Your task to perform on an android device: find snoozed emails in the gmail app Image 0: 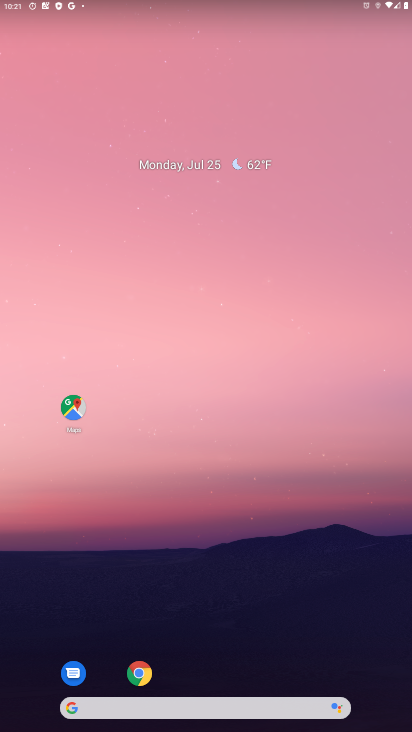
Step 0: drag from (173, 365) to (168, 210)
Your task to perform on an android device: find snoozed emails in the gmail app Image 1: 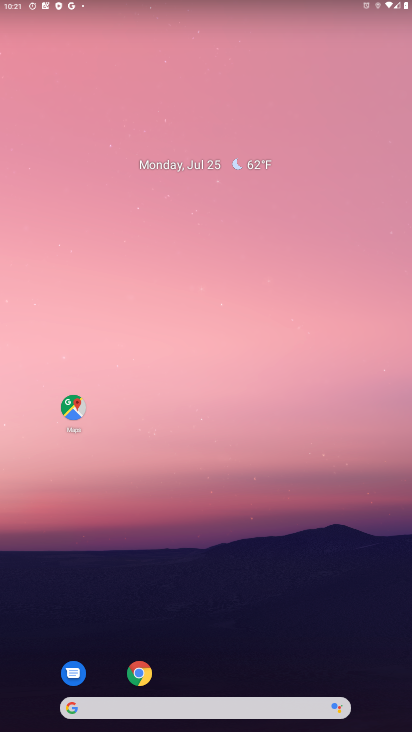
Step 1: drag from (197, 655) to (246, 65)
Your task to perform on an android device: find snoozed emails in the gmail app Image 2: 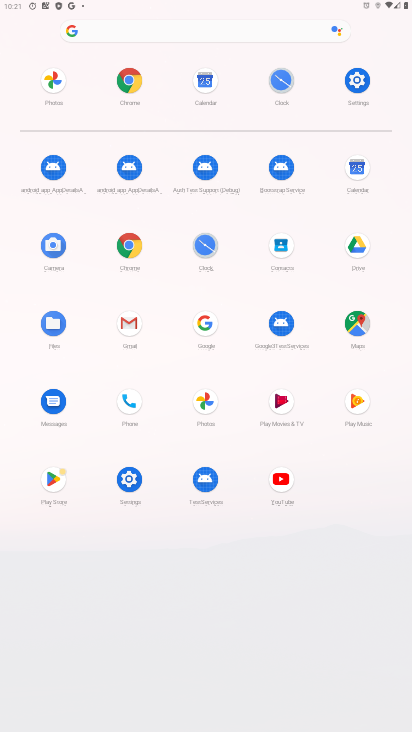
Step 2: click (129, 312)
Your task to perform on an android device: find snoozed emails in the gmail app Image 3: 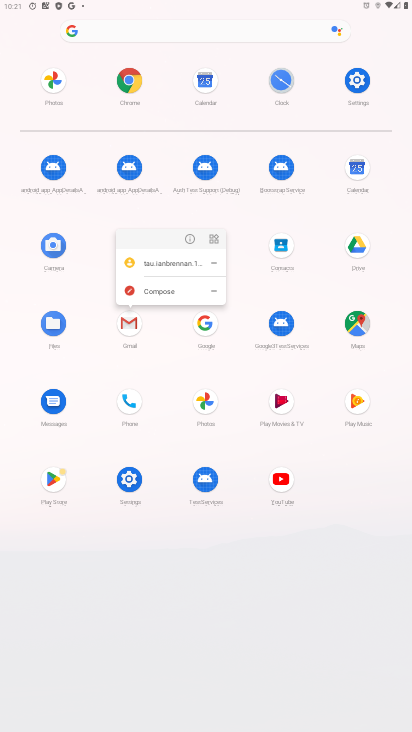
Step 3: click (186, 239)
Your task to perform on an android device: find snoozed emails in the gmail app Image 4: 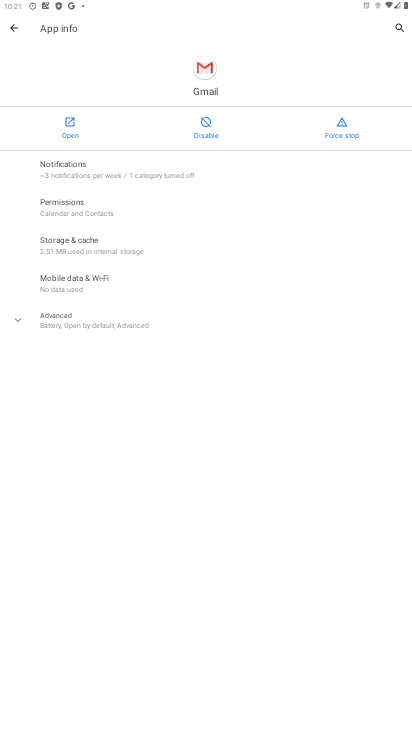
Step 4: click (72, 129)
Your task to perform on an android device: find snoozed emails in the gmail app Image 5: 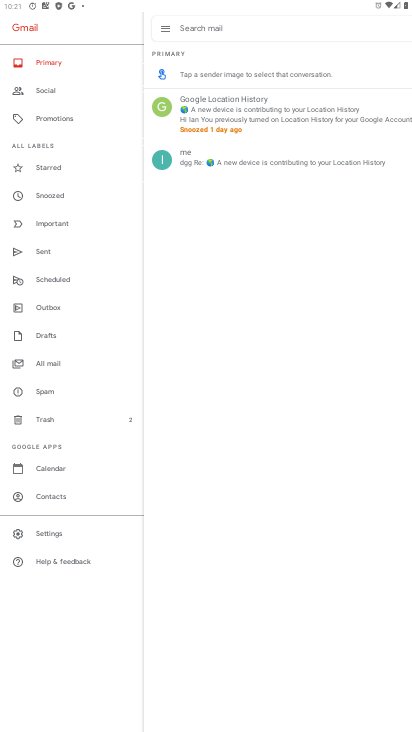
Step 5: click (56, 199)
Your task to perform on an android device: find snoozed emails in the gmail app Image 6: 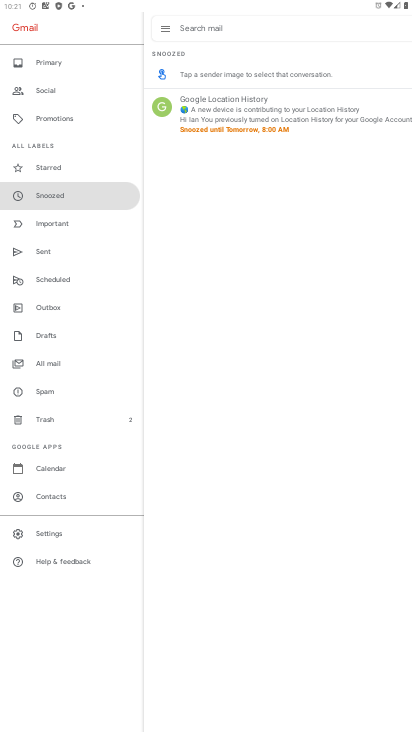
Step 6: task complete